Your task to perform on an android device: change the clock display to digital Image 0: 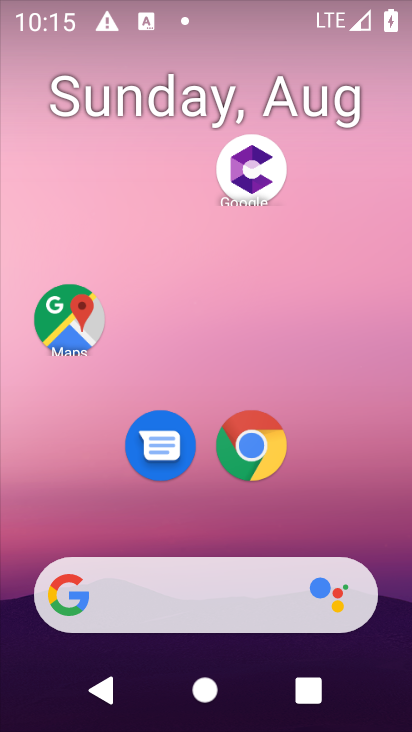
Step 0: press home button
Your task to perform on an android device: change the clock display to digital Image 1: 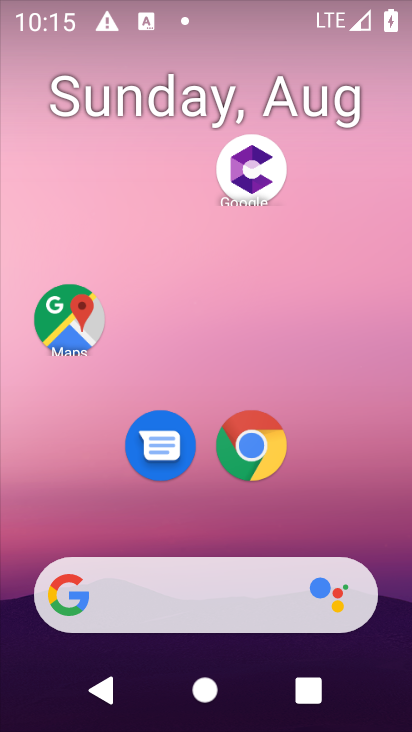
Step 1: drag from (219, 521) to (214, 0)
Your task to perform on an android device: change the clock display to digital Image 2: 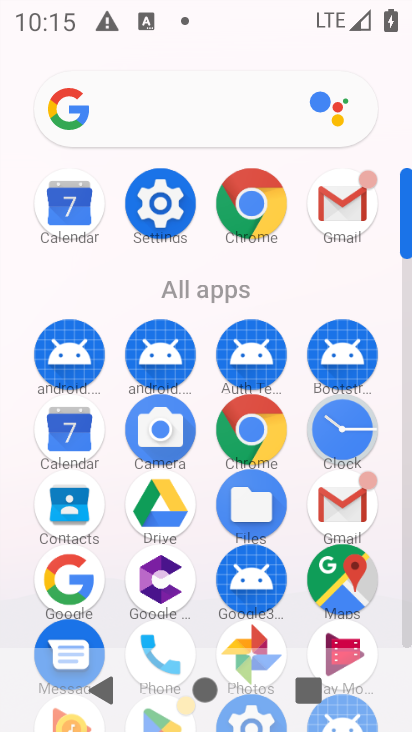
Step 2: click (339, 428)
Your task to perform on an android device: change the clock display to digital Image 3: 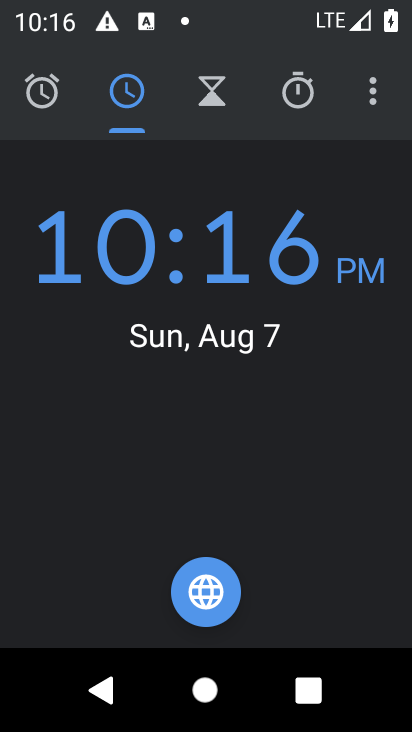
Step 3: click (374, 109)
Your task to perform on an android device: change the clock display to digital Image 4: 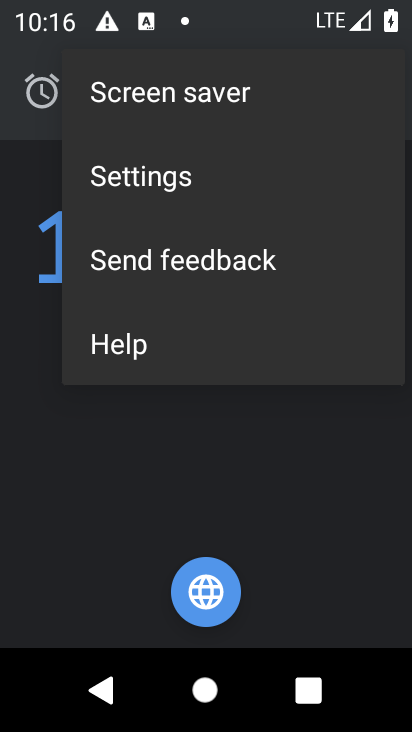
Step 4: click (232, 165)
Your task to perform on an android device: change the clock display to digital Image 5: 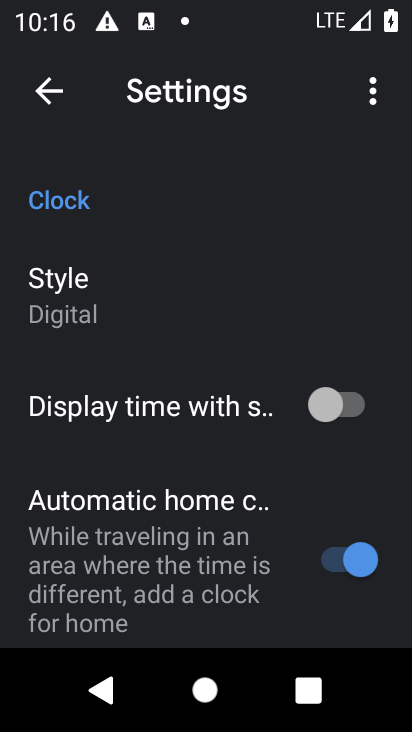
Step 5: click (115, 292)
Your task to perform on an android device: change the clock display to digital Image 6: 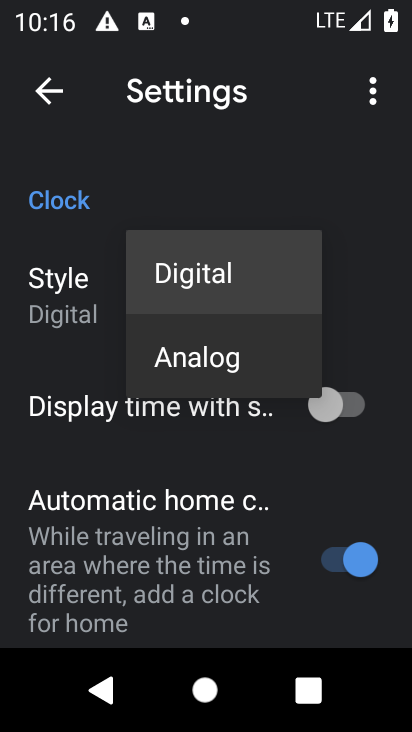
Step 6: click (240, 284)
Your task to perform on an android device: change the clock display to digital Image 7: 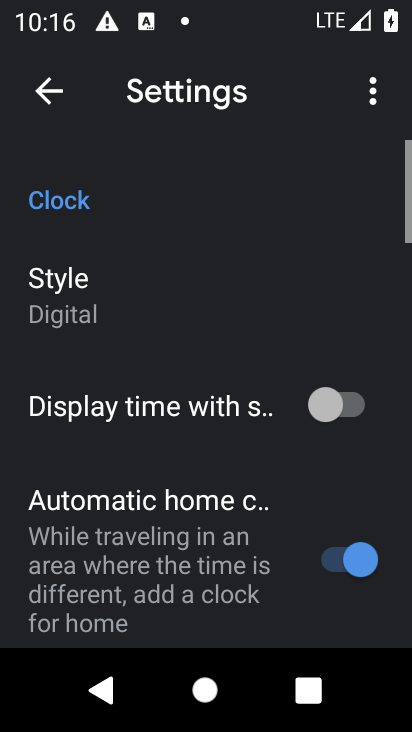
Step 7: task complete